Your task to perform on an android device: open app "Paramount+ | Peak Streaming" (install if not already installed) Image 0: 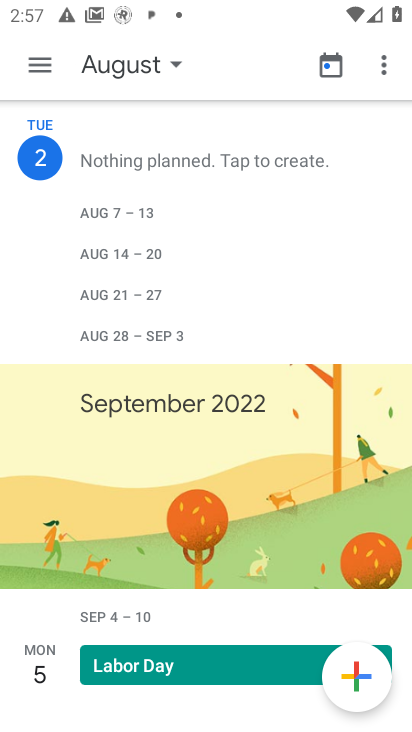
Step 0: press home button
Your task to perform on an android device: open app "Paramount+ | Peak Streaming" (install if not already installed) Image 1: 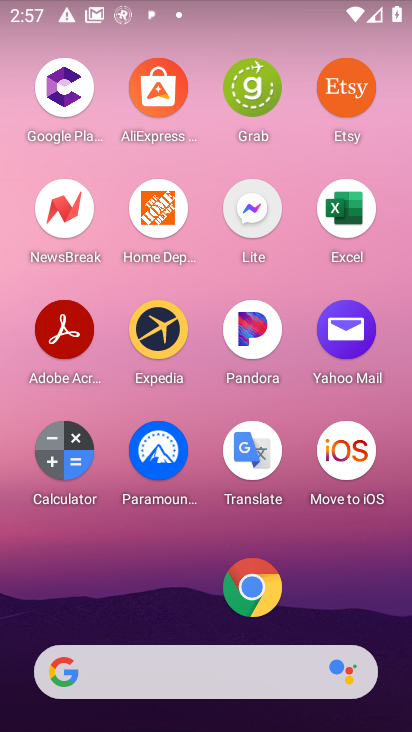
Step 1: drag from (180, 600) to (224, 117)
Your task to perform on an android device: open app "Paramount+ | Peak Streaming" (install if not already installed) Image 2: 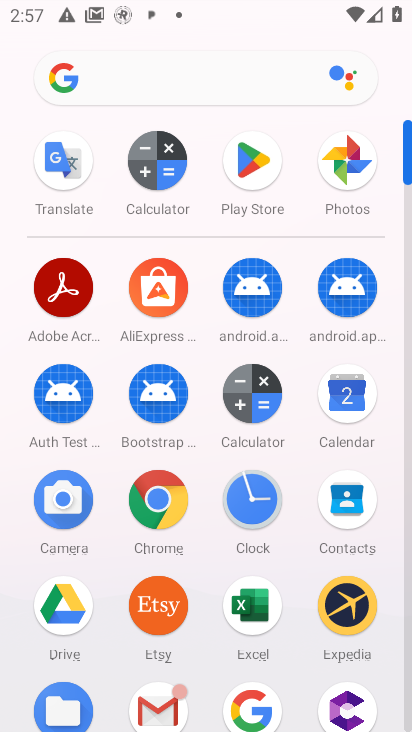
Step 2: drag from (244, 136) to (192, 136)
Your task to perform on an android device: open app "Paramount+ | Peak Streaming" (install if not already installed) Image 3: 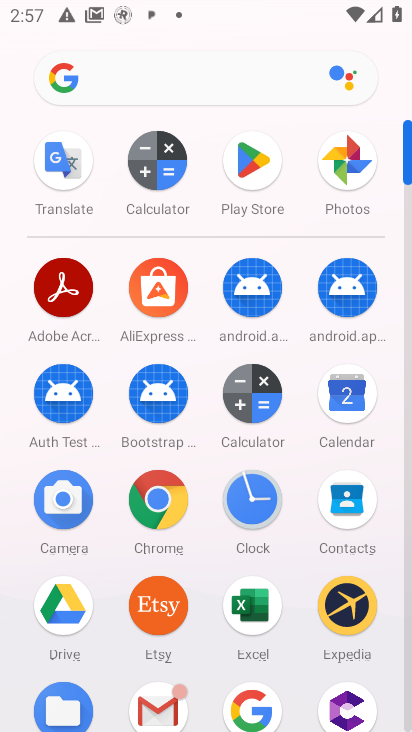
Step 3: click (236, 164)
Your task to perform on an android device: open app "Paramount+ | Peak Streaming" (install if not already installed) Image 4: 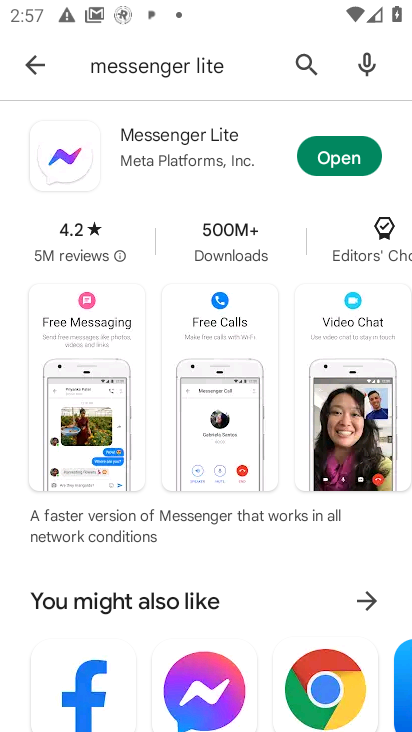
Step 4: click (296, 117)
Your task to perform on an android device: open app "Paramount+ | Peak Streaming" (install if not already installed) Image 5: 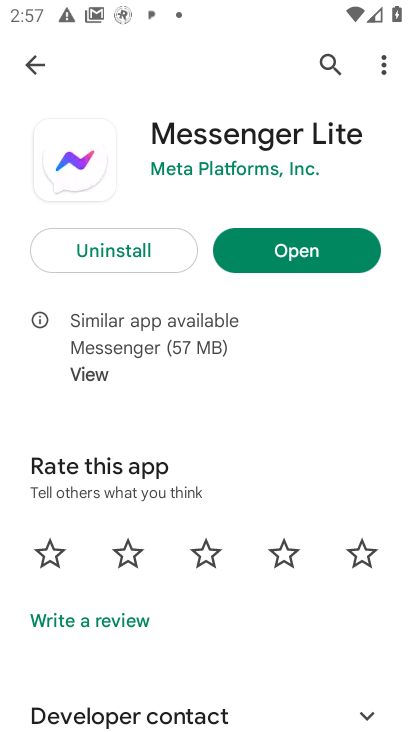
Step 5: click (325, 63)
Your task to perform on an android device: open app "Paramount+ | Peak Streaming" (install if not already installed) Image 6: 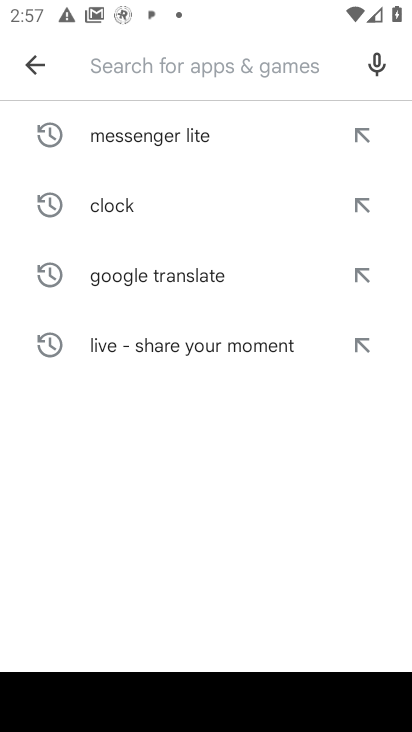
Step 6: type "Paramount+ | Peak Streaming"
Your task to perform on an android device: open app "Paramount+ | Peak Streaming" (install if not already installed) Image 7: 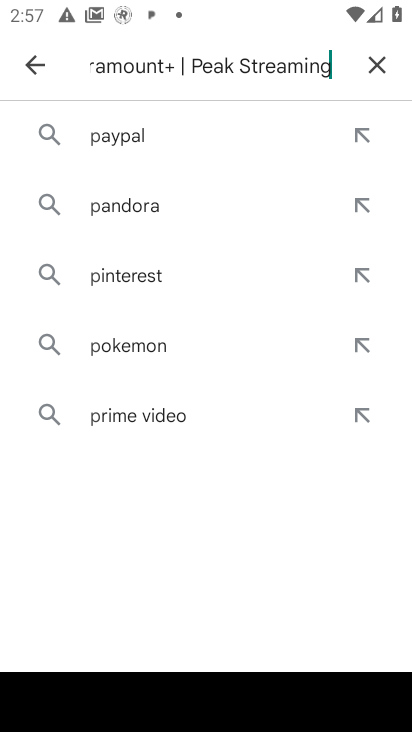
Step 7: type ""
Your task to perform on an android device: open app "Paramount+ | Peak Streaming" (install if not already installed) Image 8: 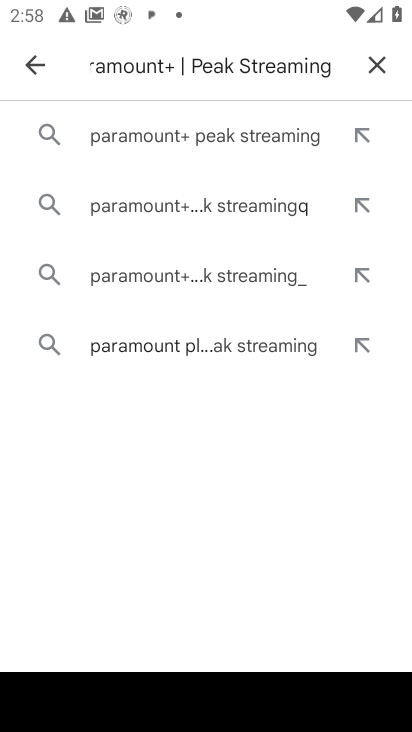
Step 8: click (205, 148)
Your task to perform on an android device: open app "Paramount+ | Peak Streaming" (install if not already installed) Image 9: 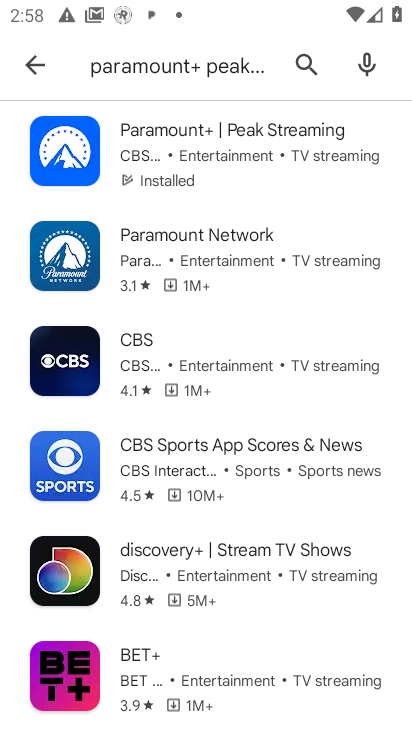
Step 9: click (205, 148)
Your task to perform on an android device: open app "Paramount+ | Peak Streaming" (install if not already installed) Image 10: 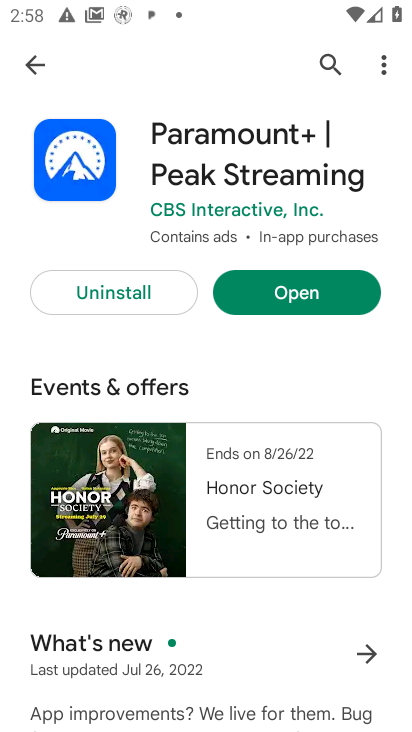
Step 10: click (295, 280)
Your task to perform on an android device: open app "Paramount+ | Peak Streaming" (install if not already installed) Image 11: 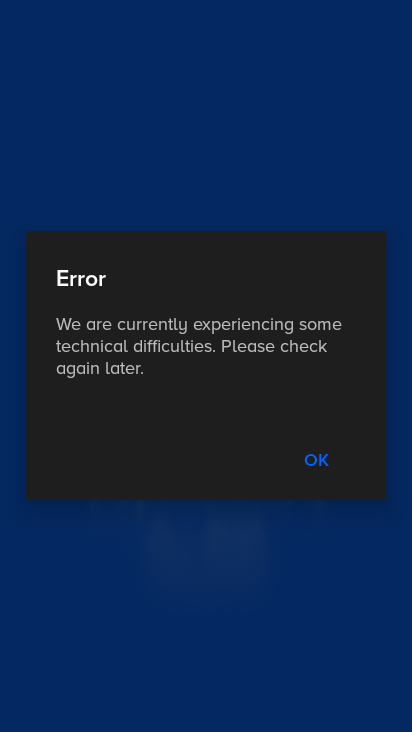
Step 11: task complete